Your task to perform on an android device: Search for Mexican restaurants on Maps Image 0: 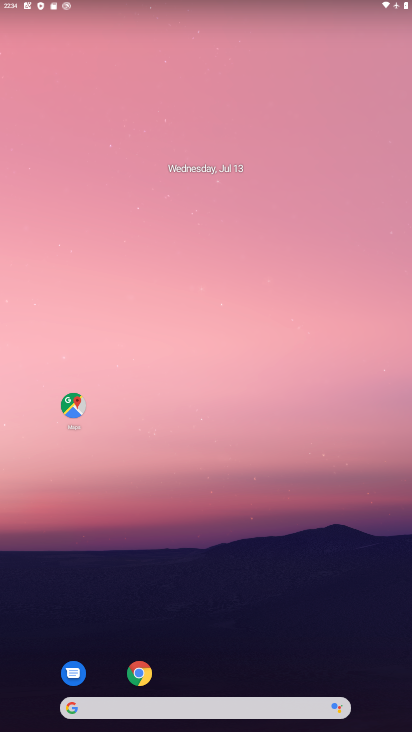
Step 0: click (70, 407)
Your task to perform on an android device: Search for Mexican restaurants on Maps Image 1: 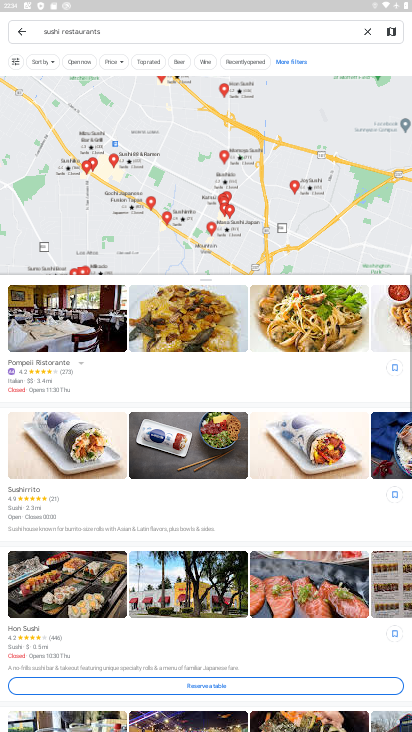
Step 1: click (363, 32)
Your task to perform on an android device: Search for Mexican restaurants on Maps Image 2: 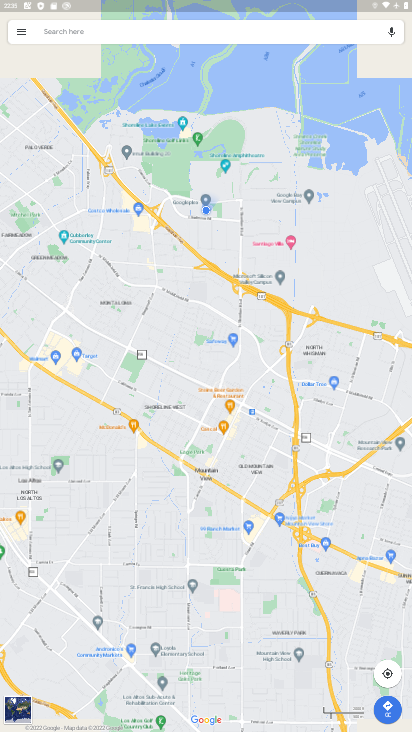
Step 2: click (89, 36)
Your task to perform on an android device: Search for Mexican restaurants on Maps Image 3: 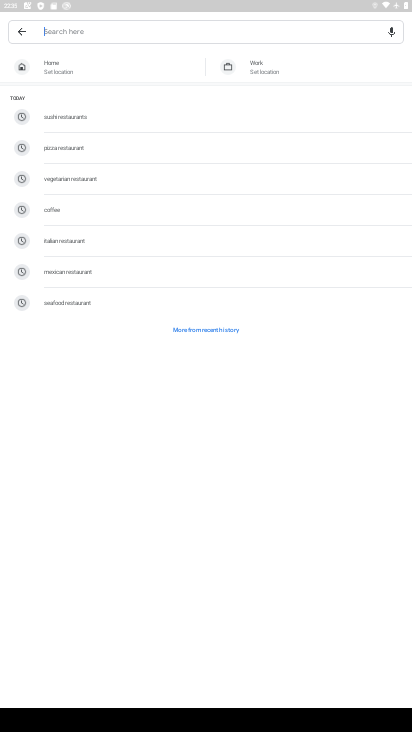
Step 3: click (83, 270)
Your task to perform on an android device: Search for Mexican restaurants on Maps Image 4: 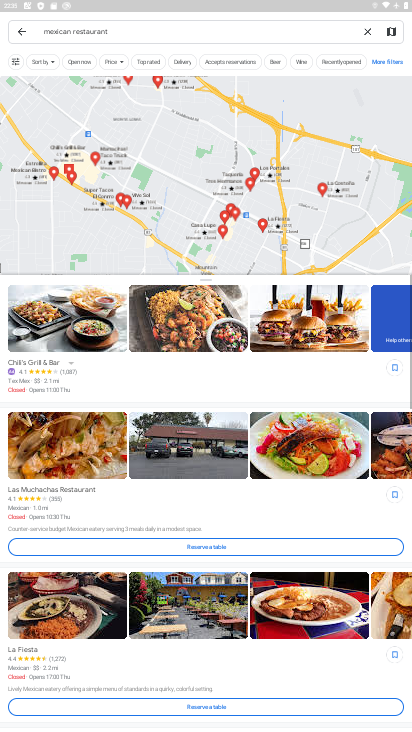
Step 4: task complete